Your task to perform on an android device: change alarm snooze length Image 0: 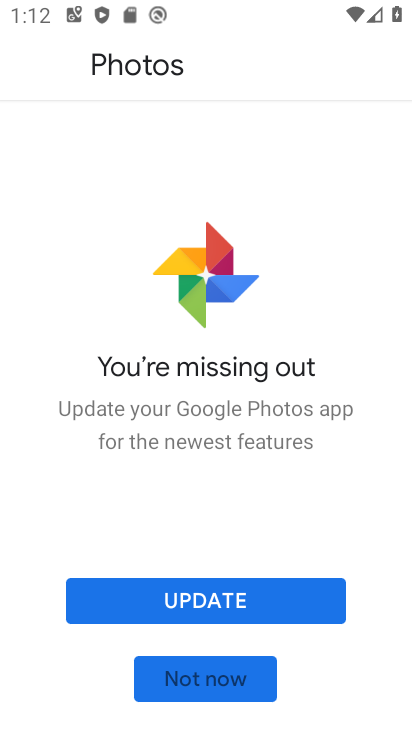
Step 0: press home button
Your task to perform on an android device: change alarm snooze length Image 1: 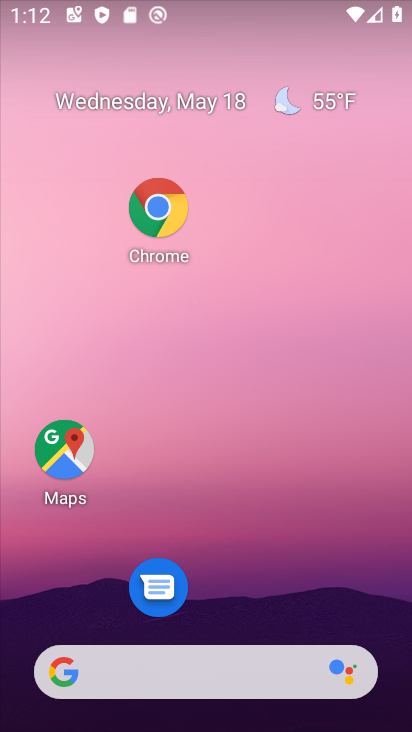
Step 1: drag from (260, 593) to (238, 145)
Your task to perform on an android device: change alarm snooze length Image 2: 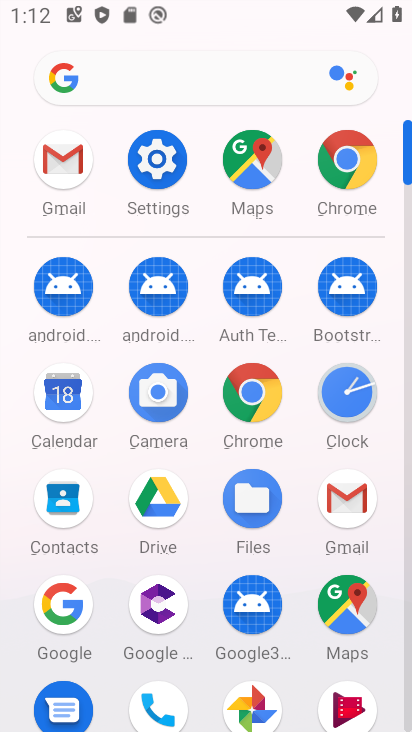
Step 2: click (363, 394)
Your task to perform on an android device: change alarm snooze length Image 3: 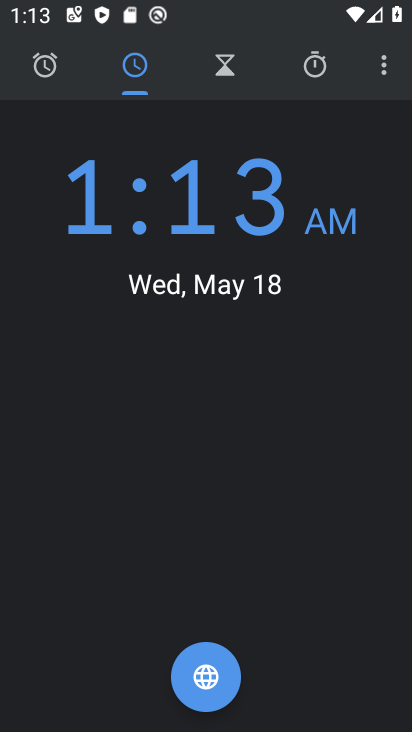
Step 3: click (389, 75)
Your task to perform on an android device: change alarm snooze length Image 4: 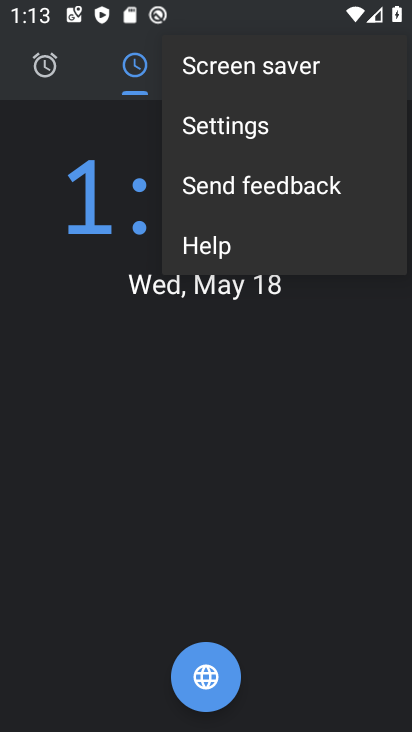
Step 4: click (247, 135)
Your task to perform on an android device: change alarm snooze length Image 5: 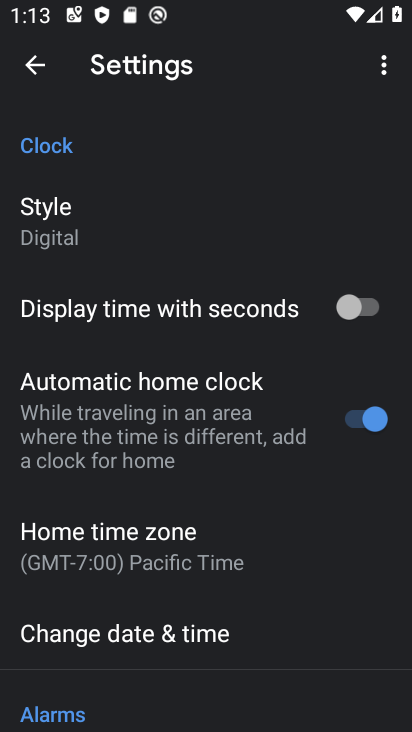
Step 5: drag from (171, 494) to (210, 307)
Your task to perform on an android device: change alarm snooze length Image 6: 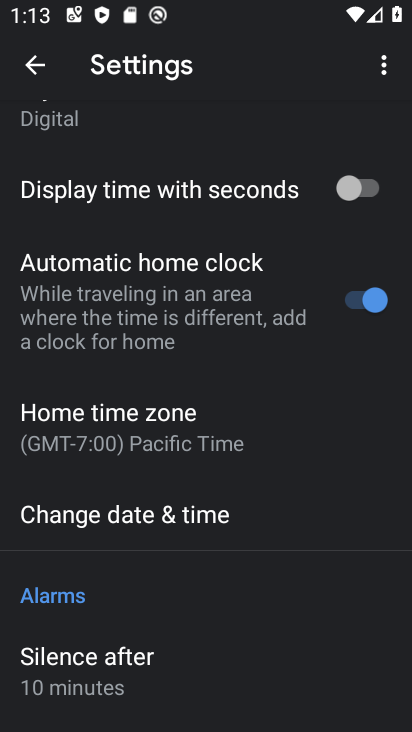
Step 6: drag from (181, 666) to (210, 336)
Your task to perform on an android device: change alarm snooze length Image 7: 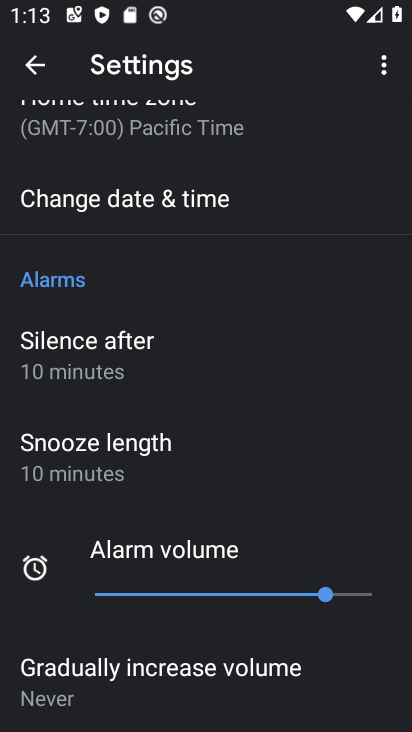
Step 7: click (105, 470)
Your task to perform on an android device: change alarm snooze length Image 8: 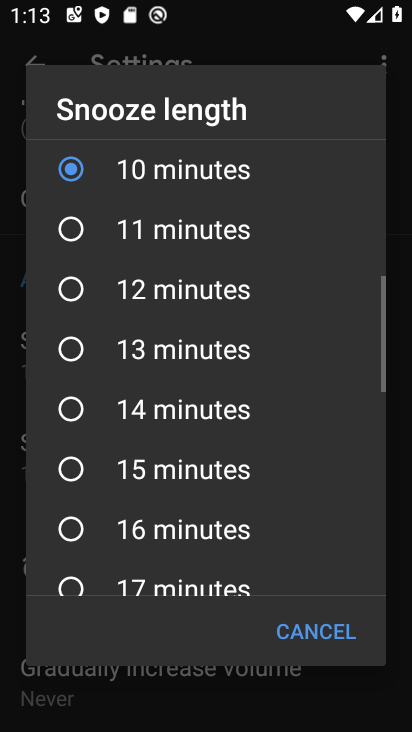
Step 8: click (71, 237)
Your task to perform on an android device: change alarm snooze length Image 9: 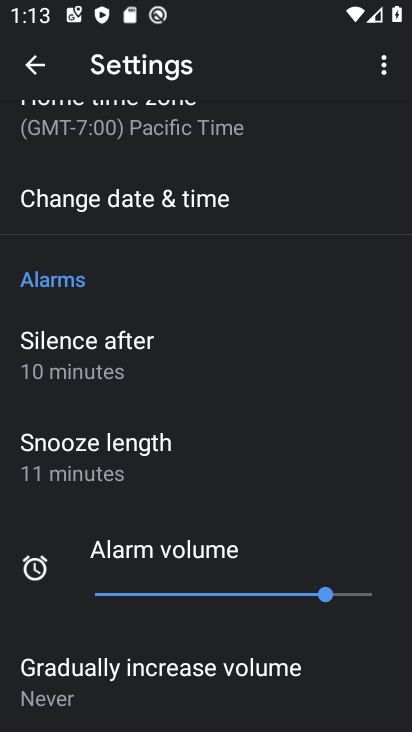
Step 9: task complete